Your task to perform on an android device: Open Google Chrome Image 0: 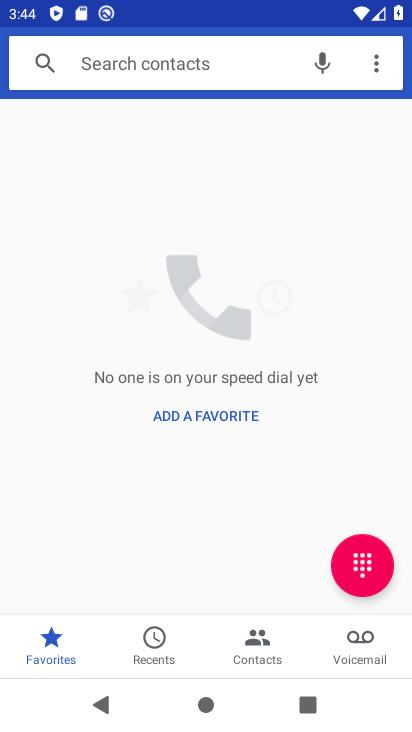
Step 0: press home button
Your task to perform on an android device: Open Google Chrome Image 1: 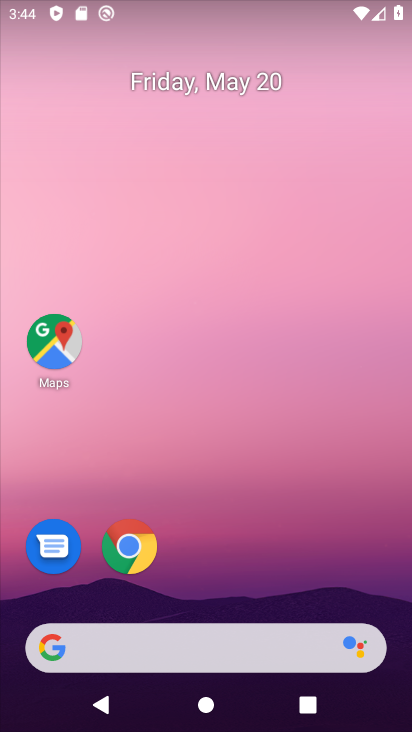
Step 1: click (133, 542)
Your task to perform on an android device: Open Google Chrome Image 2: 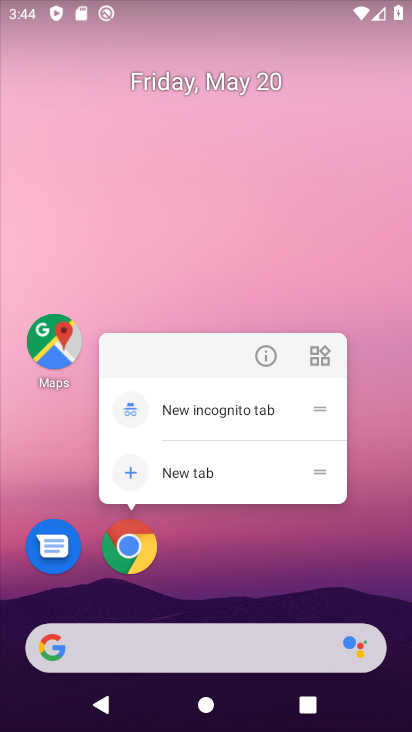
Step 2: click (127, 547)
Your task to perform on an android device: Open Google Chrome Image 3: 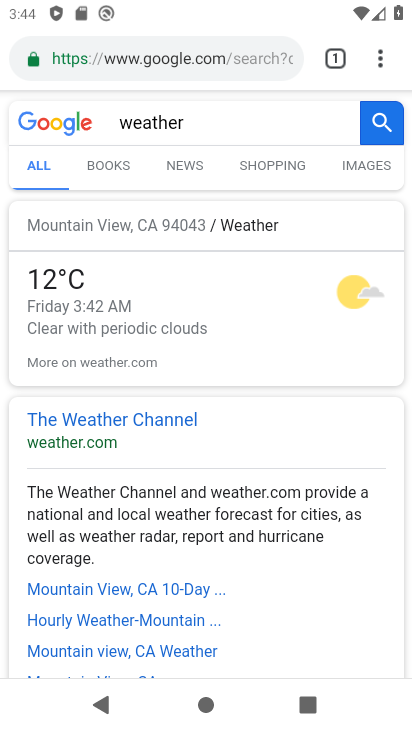
Step 3: task complete